Your task to perform on an android device: manage bookmarks in the chrome app Image 0: 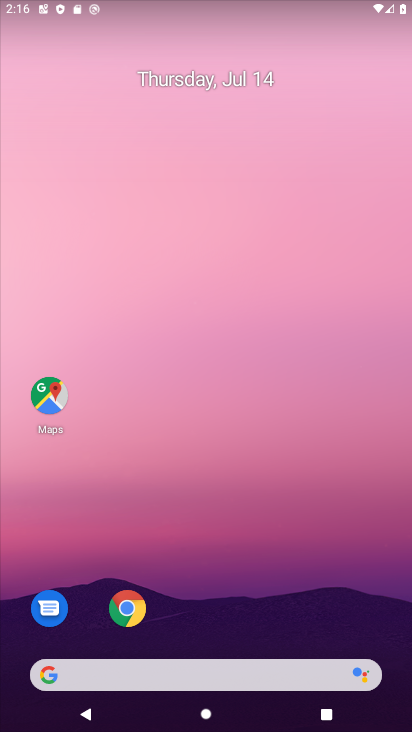
Step 0: click (138, 601)
Your task to perform on an android device: manage bookmarks in the chrome app Image 1: 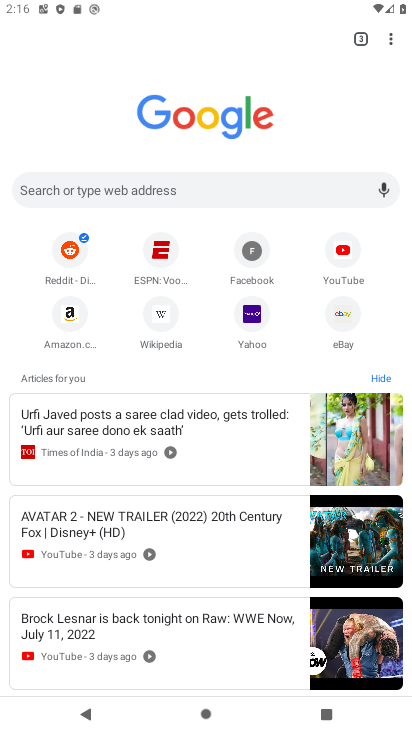
Step 1: task complete